Your task to perform on an android device: Show me the alarms in the clock app Image 0: 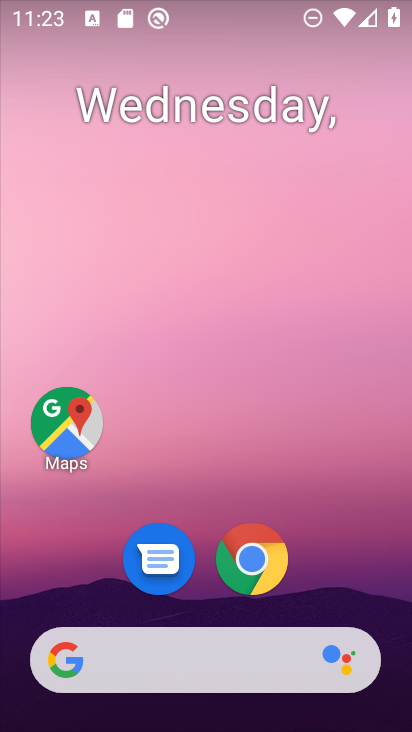
Step 0: drag from (174, 587) to (279, 180)
Your task to perform on an android device: Show me the alarms in the clock app Image 1: 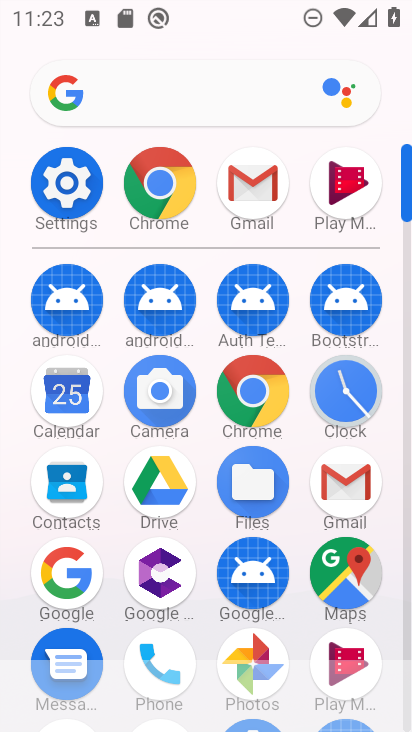
Step 1: click (357, 419)
Your task to perform on an android device: Show me the alarms in the clock app Image 2: 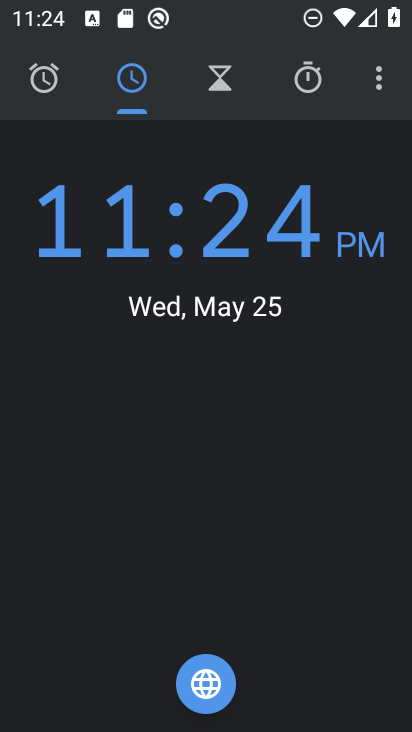
Step 2: click (62, 86)
Your task to perform on an android device: Show me the alarms in the clock app Image 3: 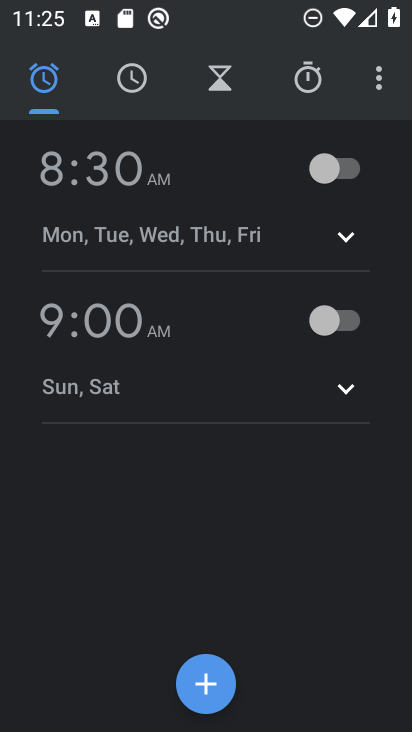
Step 3: task complete